Your task to perform on an android device: delete a single message in the gmail app Image 0: 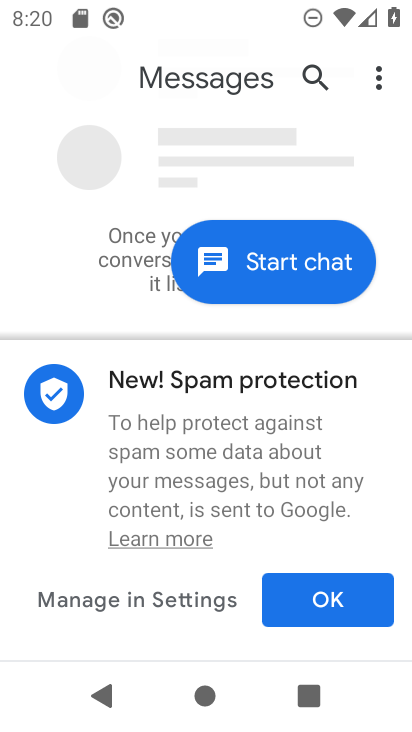
Step 0: press home button
Your task to perform on an android device: delete a single message in the gmail app Image 1: 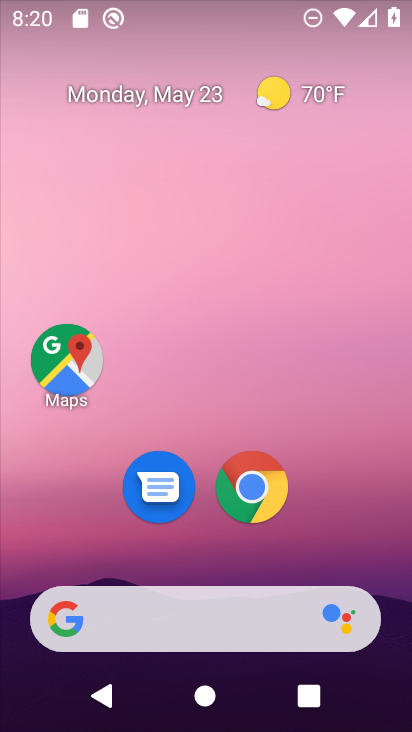
Step 1: drag from (206, 582) to (341, 117)
Your task to perform on an android device: delete a single message in the gmail app Image 2: 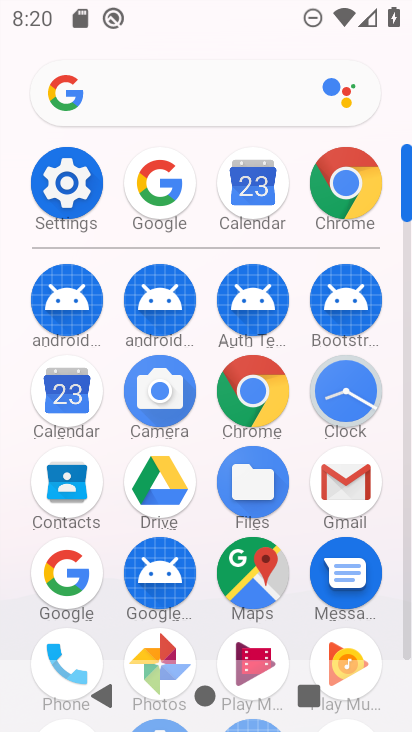
Step 2: click (352, 493)
Your task to perform on an android device: delete a single message in the gmail app Image 3: 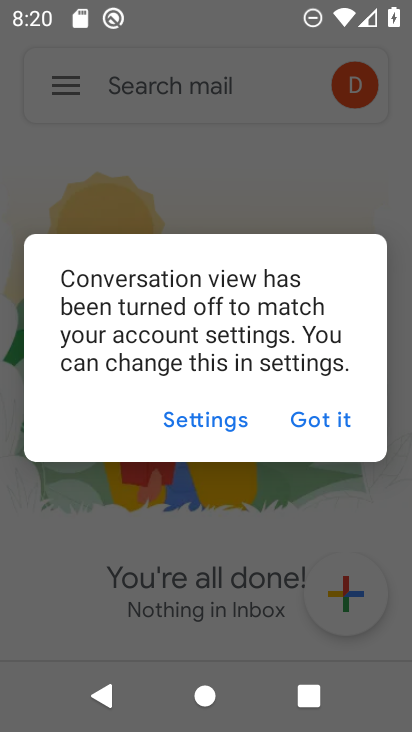
Step 3: click (337, 424)
Your task to perform on an android device: delete a single message in the gmail app Image 4: 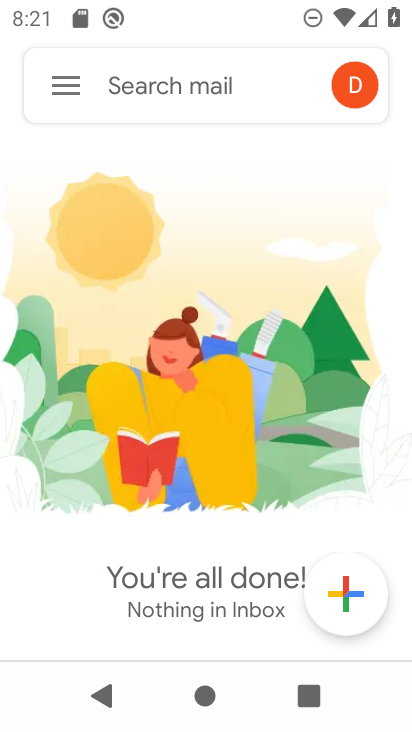
Step 4: task complete